Your task to perform on an android device: set the timer Image 0: 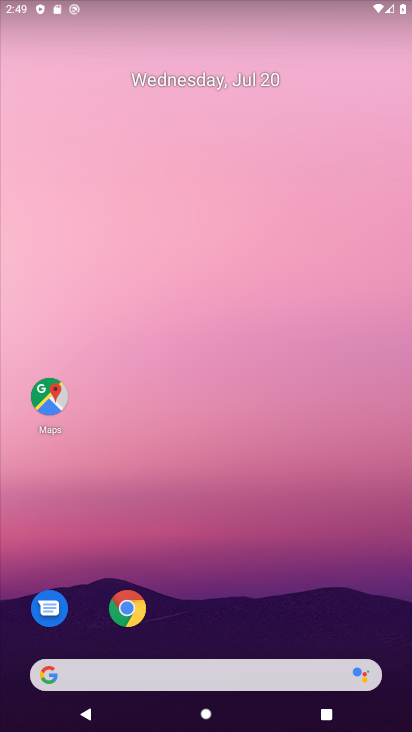
Step 0: drag from (279, 624) to (270, 65)
Your task to perform on an android device: set the timer Image 1: 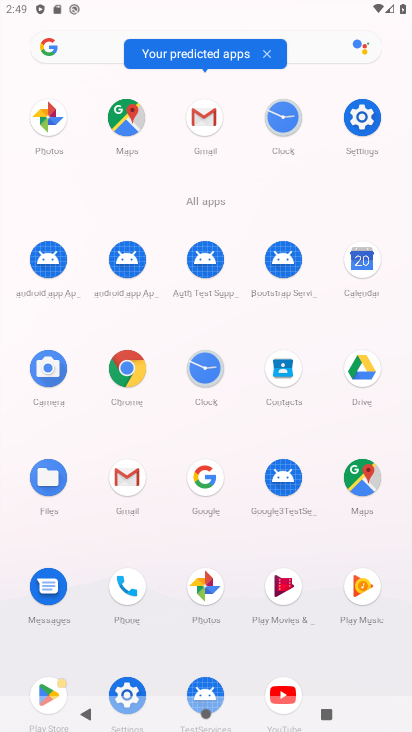
Step 1: click (293, 127)
Your task to perform on an android device: set the timer Image 2: 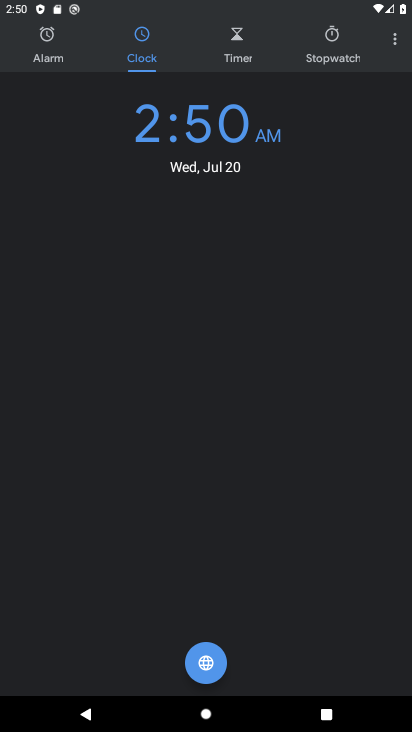
Step 2: click (242, 36)
Your task to perform on an android device: set the timer Image 3: 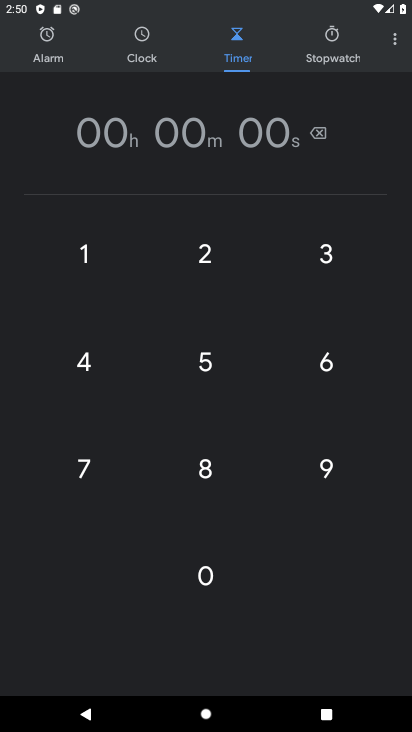
Step 3: click (138, 276)
Your task to perform on an android device: set the timer Image 4: 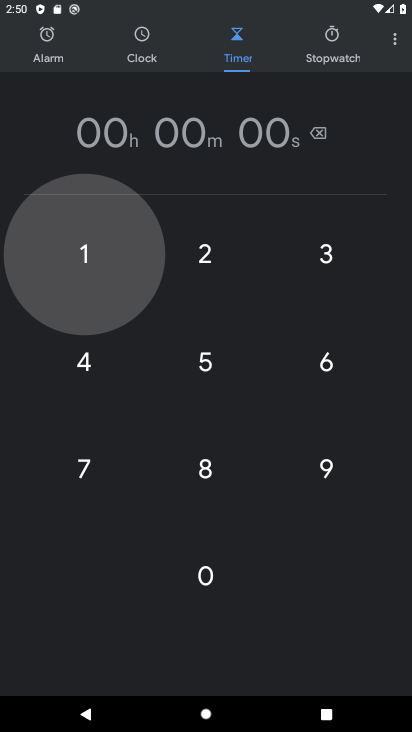
Step 4: click (138, 276)
Your task to perform on an android device: set the timer Image 5: 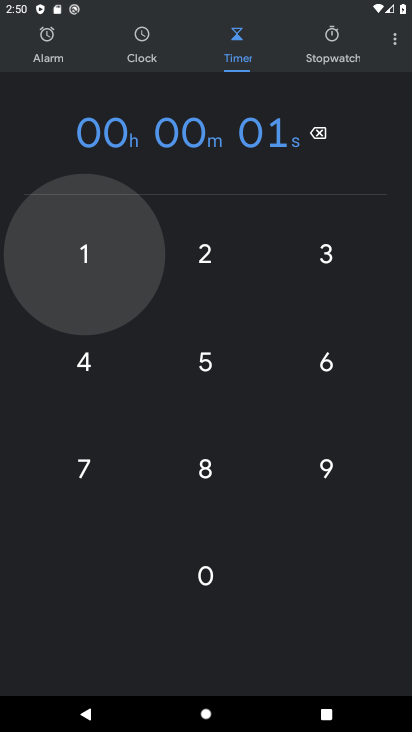
Step 5: click (138, 276)
Your task to perform on an android device: set the timer Image 6: 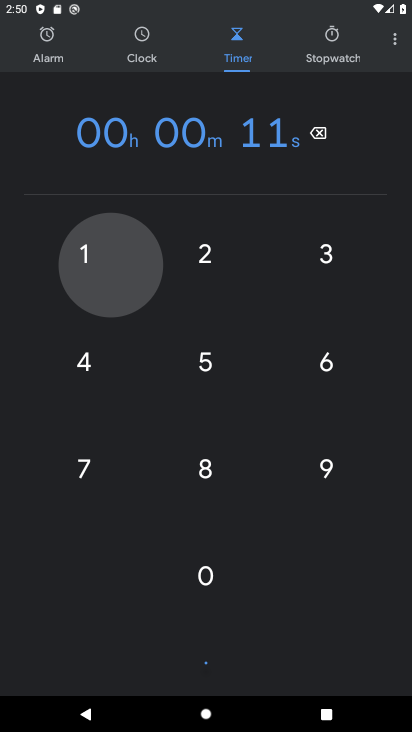
Step 6: click (138, 276)
Your task to perform on an android device: set the timer Image 7: 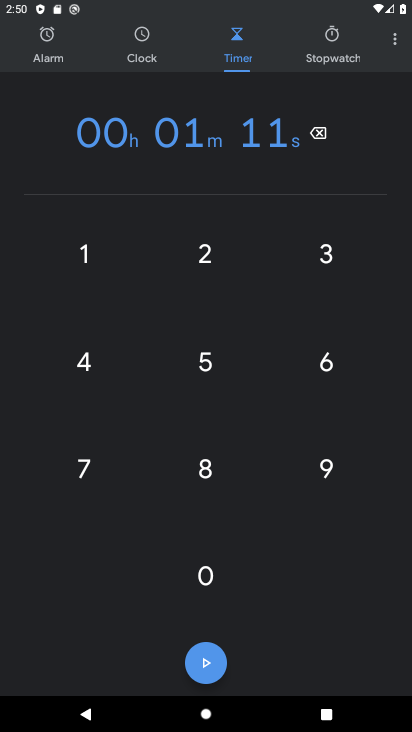
Step 7: click (138, 276)
Your task to perform on an android device: set the timer Image 8: 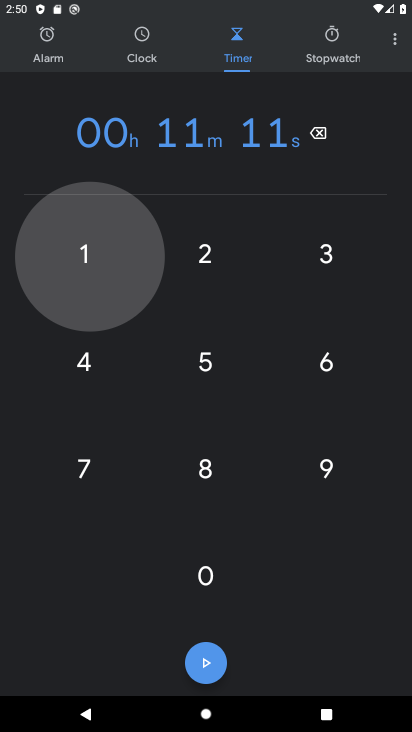
Step 8: click (138, 276)
Your task to perform on an android device: set the timer Image 9: 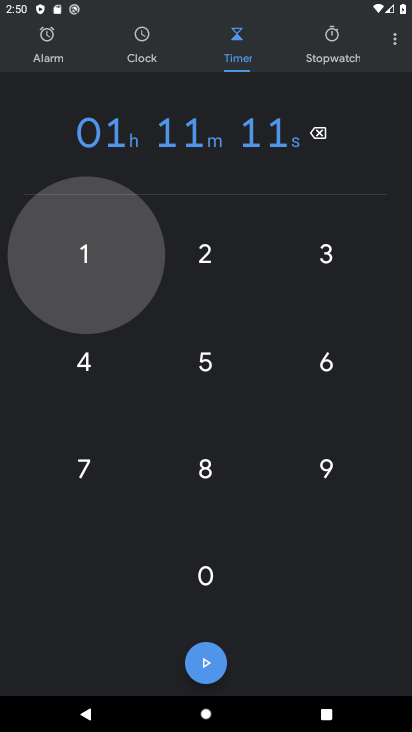
Step 9: click (138, 276)
Your task to perform on an android device: set the timer Image 10: 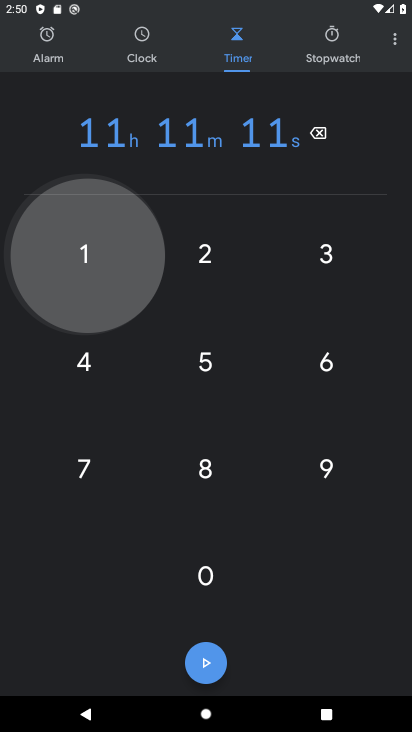
Step 10: click (138, 276)
Your task to perform on an android device: set the timer Image 11: 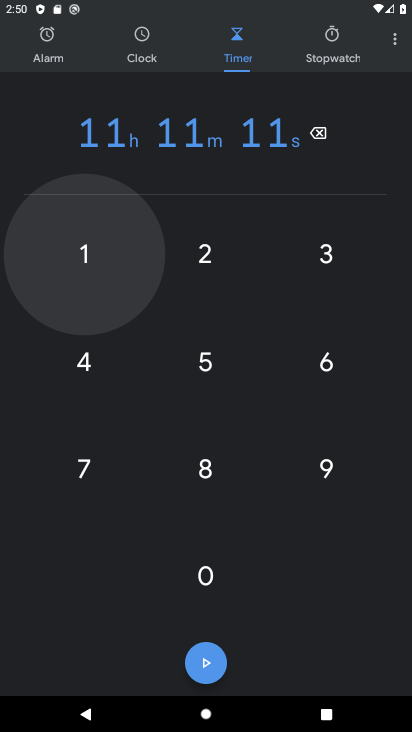
Step 11: click (138, 276)
Your task to perform on an android device: set the timer Image 12: 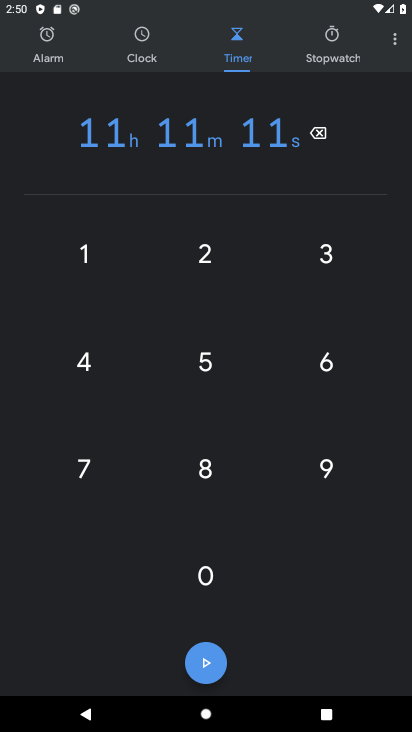
Step 12: click (194, 666)
Your task to perform on an android device: set the timer Image 13: 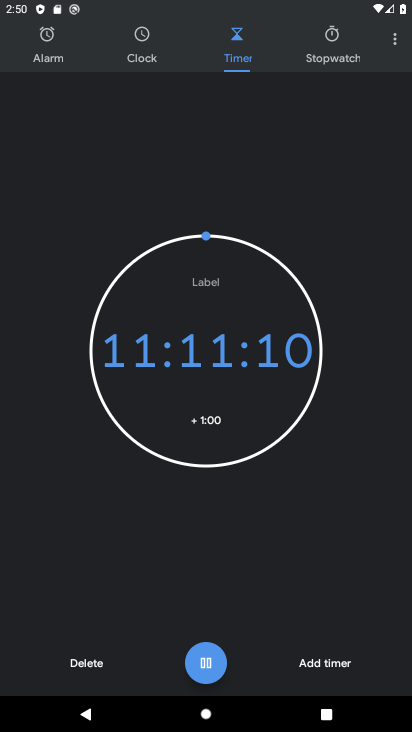
Step 13: task complete